Your task to perform on an android device: Go to Google maps Image 0: 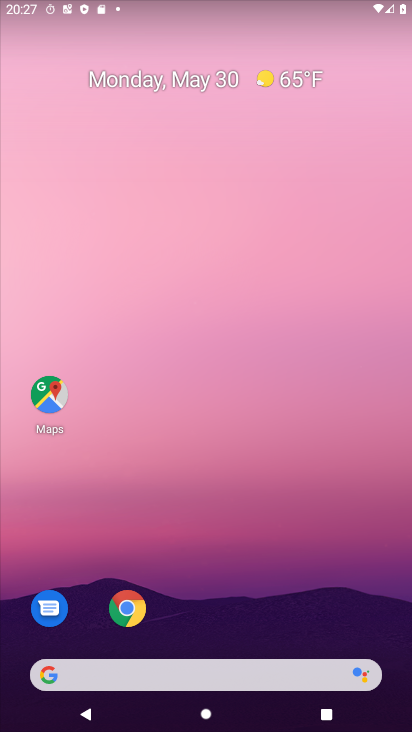
Step 0: click (37, 392)
Your task to perform on an android device: Go to Google maps Image 1: 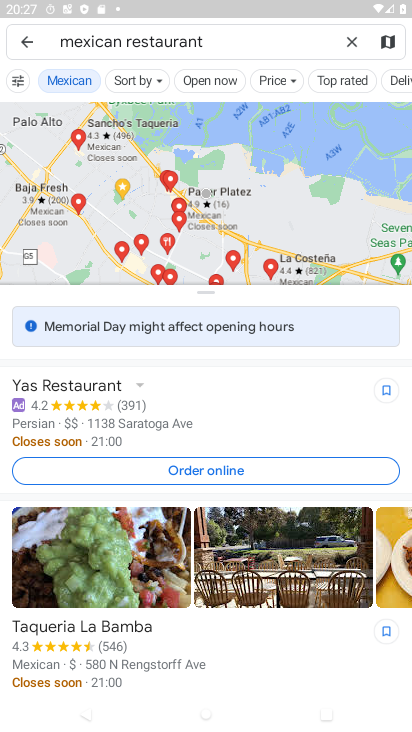
Step 1: task complete